Your task to perform on an android device: Open Google Chrome Image 0: 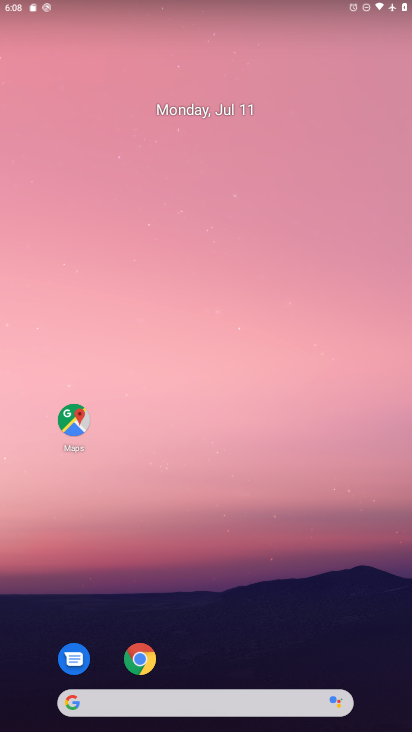
Step 0: click (138, 662)
Your task to perform on an android device: Open Google Chrome Image 1: 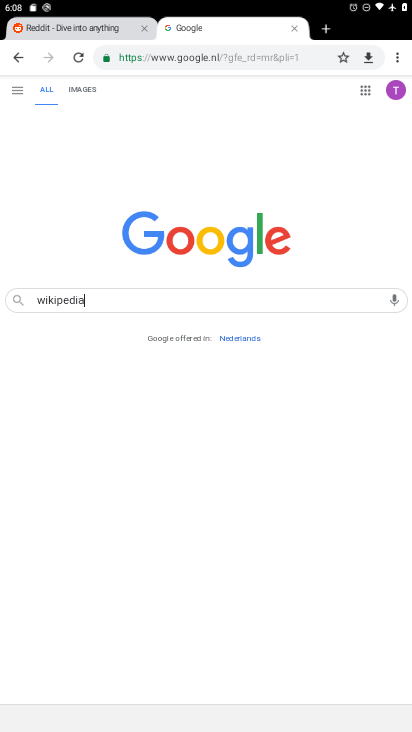
Step 1: task complete